Your task to perform on an android device: check battery use Image 0: 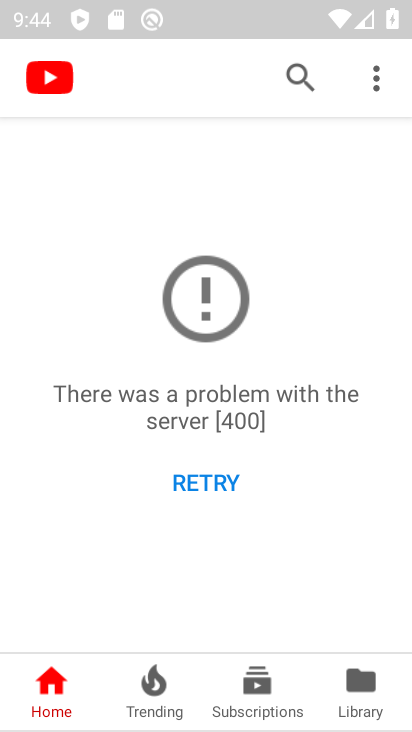
Step 0: task complete